Your task to perform on an android device: find which apps use the phone's location Image 0: 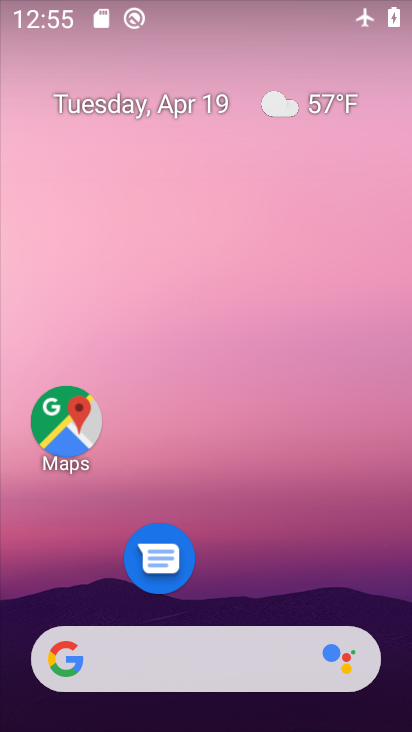
Step 0: drag from (275, 570) to (235, 155)
Your task to perform on an android device: find which apps use the phone's location Image 1: 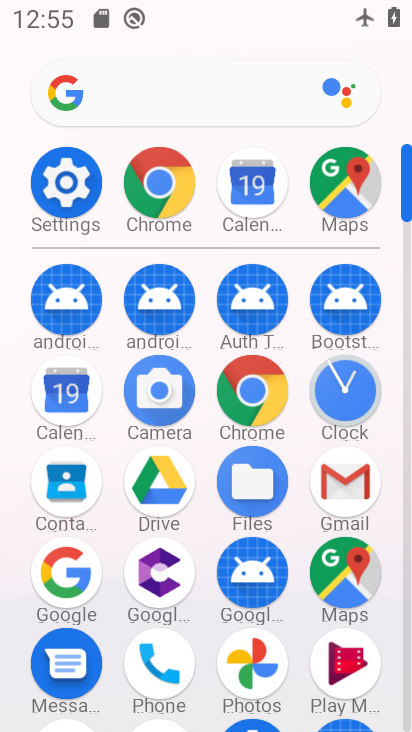
Step 1: click (63, 204)
Your task to perform on an android device: find which apps use the phone's location Image 2: 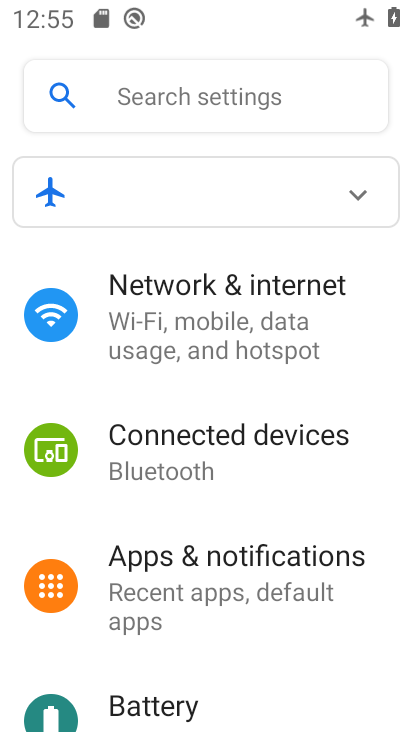
Step 2: drag from (192, 608) to (182, 166)
Your task to perform on an android device: find which apps use the phone's location Image 3: 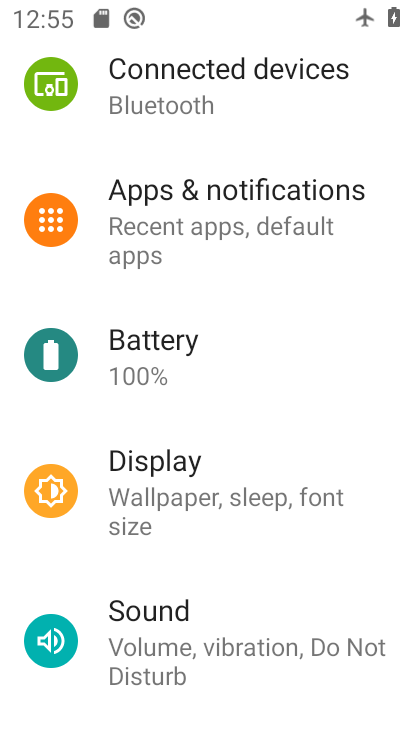
Step 3: drag from (157, 609) to (151, 242)
Your task to perform on an android device: find which apps use the phone's location Image 4: 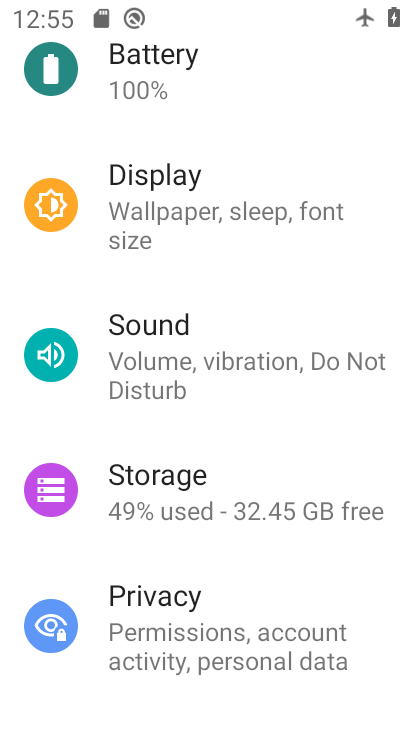
Step 4: drag from (153, 650) to (164, 137)
Your task to perform on an android device: find which apps use the phone's location Image 5: 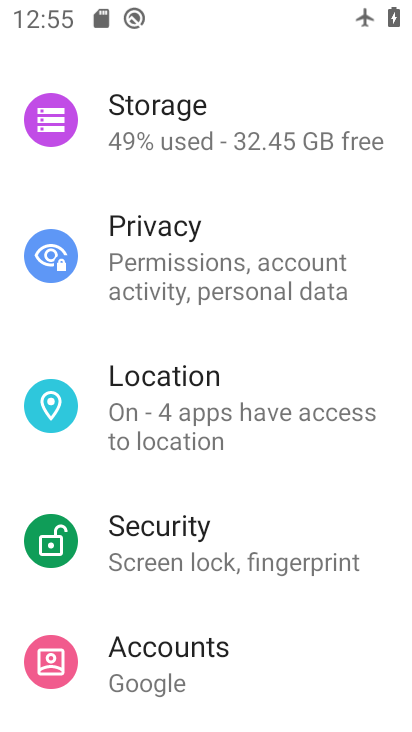
Step 5: click (158, 405)
Your task to perform on an android device: find which apps use the phone's location Image 6: 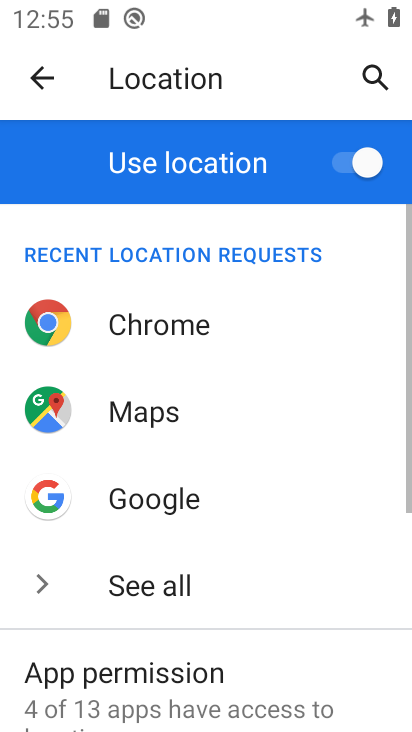
Step 6: click (160, 703)
Your task to perform on an android device: find which apps use the phone's location Image 7: 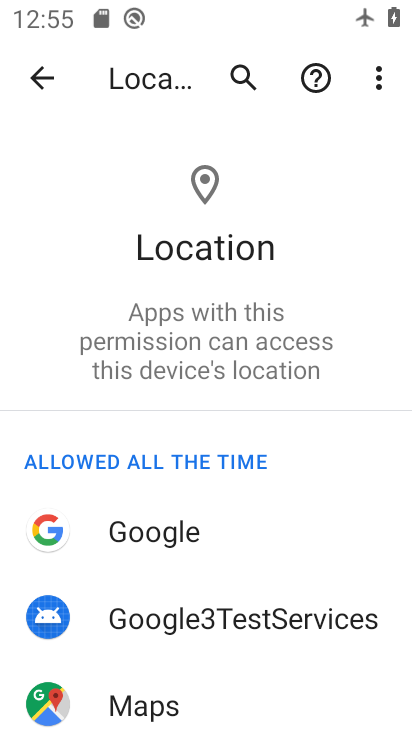
Step 7: task complete